Your task to perform on an android device: Set the phone to "Do not disturb". Image 0: 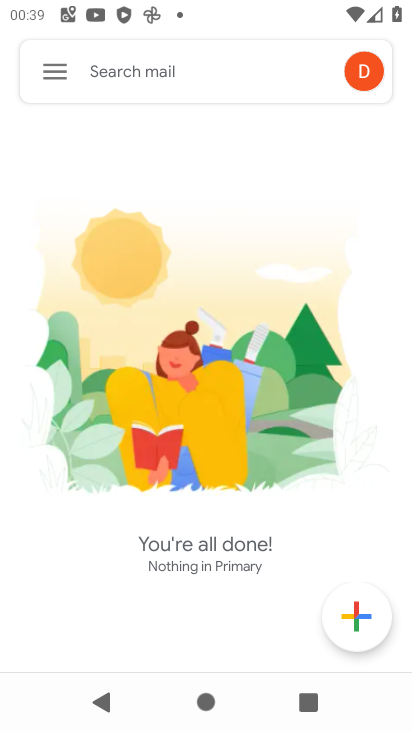
Step 0: press home button
Your task to perform on an android device: Set the phone to "Do not disturb". Image 1: 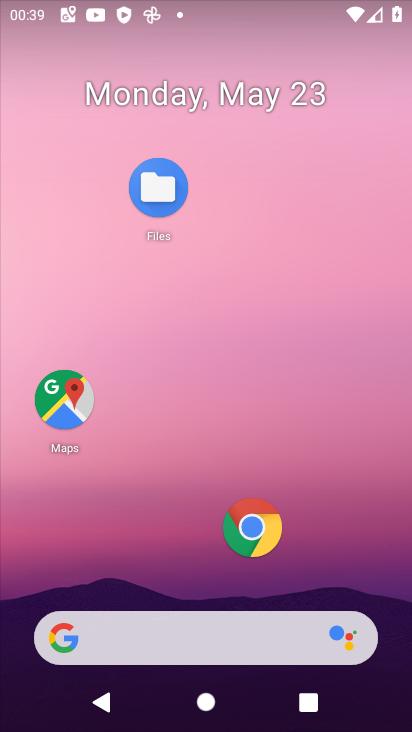
Step 1: drag from (168, 551) to (269, 4)
Your task to perform on an android device: Set the phone to "Do not disturb". Image 2: 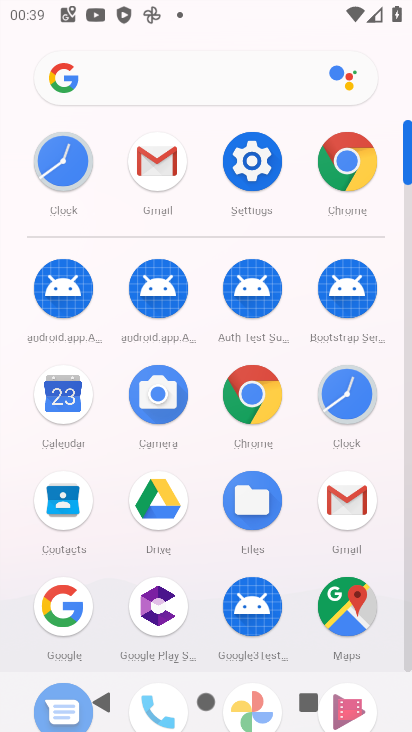
Step 2: click (253, 147)
Your task to perform on an android device: Set the phone to "Do not disturb". Image 3: 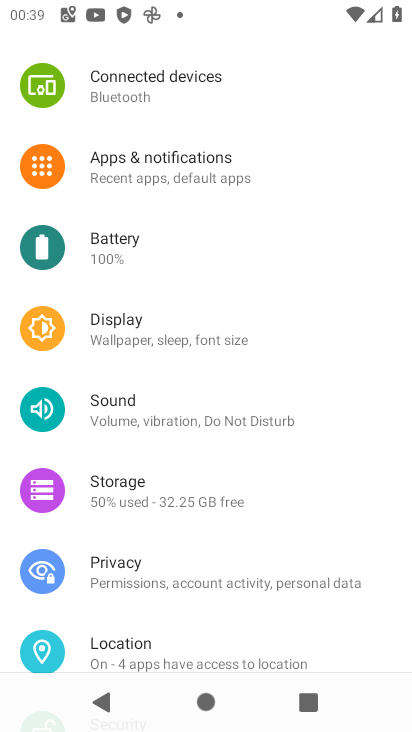
Step 3: click (114, 403)
Your task to perform on an android device: Set the phone to "Do not disturb". Image 4: 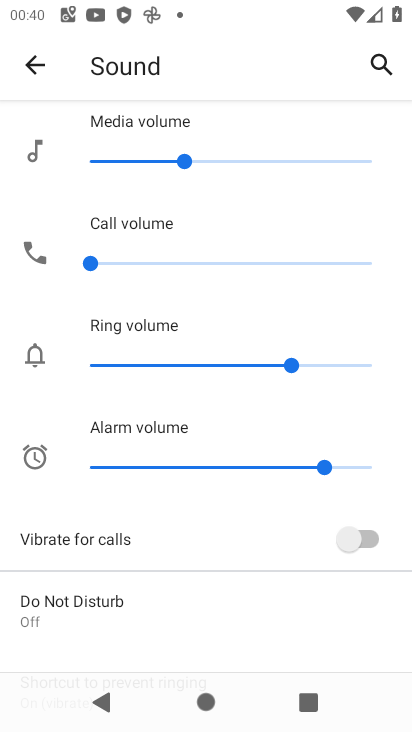
Step 4: click (84, 603)
Your task to perform on an android device: Set the phone to "Do not disturb". Image 5: 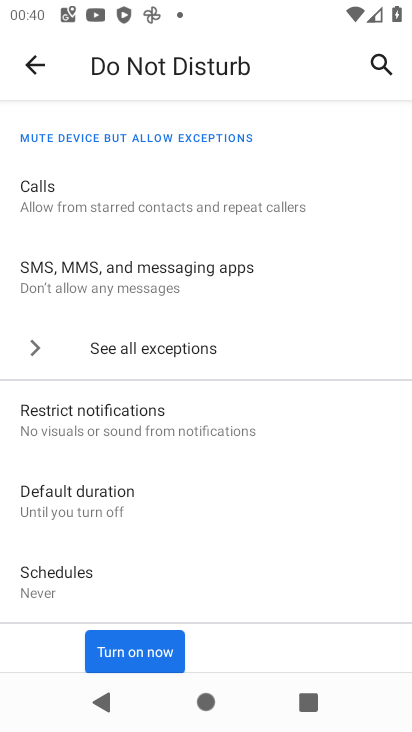
Step 5: click (128, 653)
Your task to perform on an android device: Set the phone to "Do not disturb". Image 6: 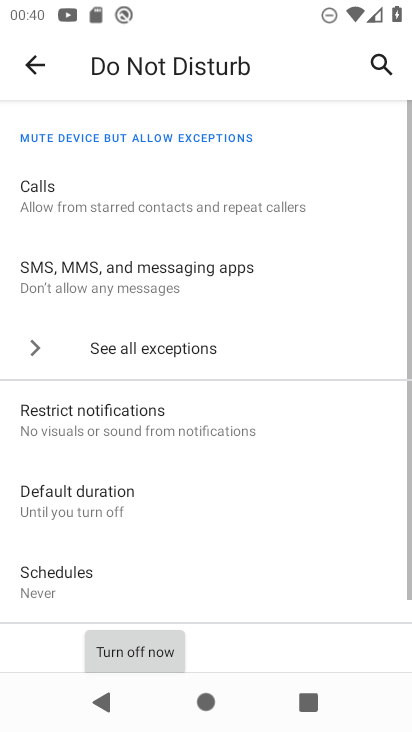
Step 6: click (128, 653)
Your task to perform on an android device: Set the phone to "Do not disturb". Image 7: 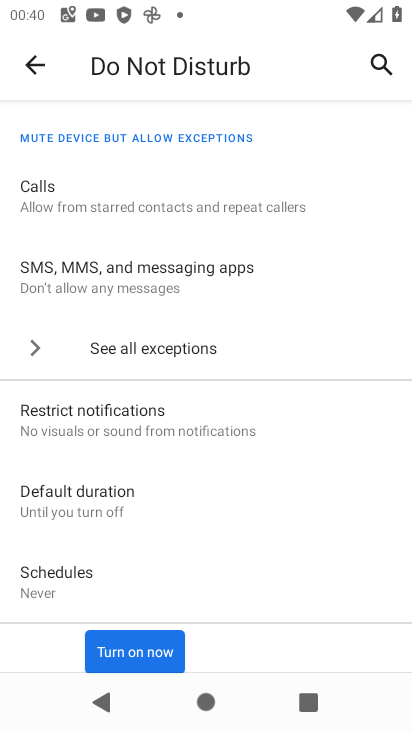
Step 7: click (127, 660)
Your task to perform on an android device: Set the phone to "Do not disturb". Image 8: 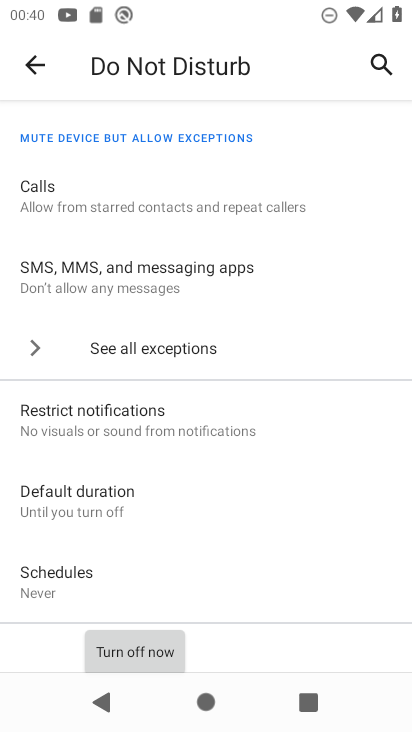
Step 8: task complete